Your task to perform on an android device: Go to network settings Image 0: 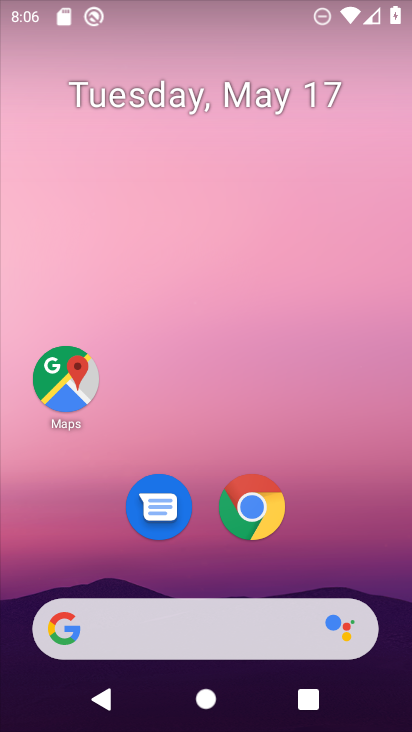
Step 0: drag from (379, 589) to (343, 6)
Your task to perform on an android device: Go to network settings Image 1: 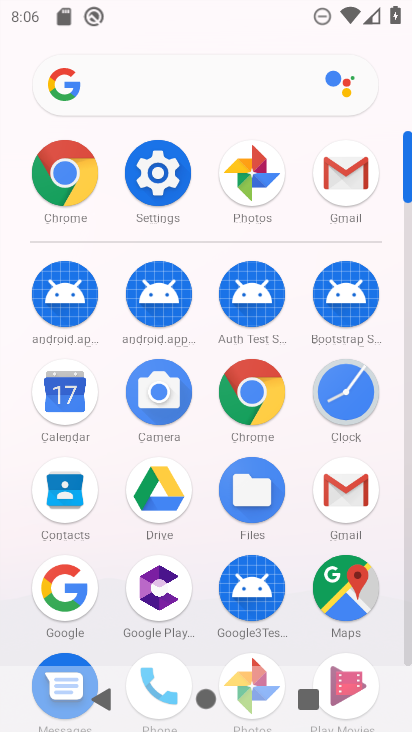
Step 1: click (162, 175)
Your task to perform on an android device: Go to network settings Image 2: 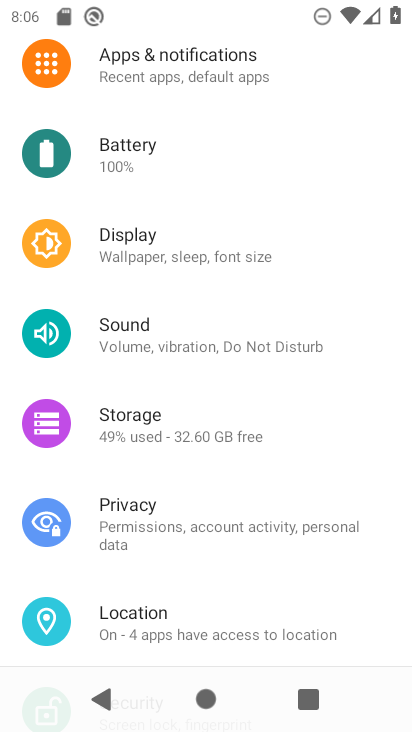
Step 2: drag from (196, 157) to (200, 442)
Your task to perform on an android device: Go to network settings Image 3: 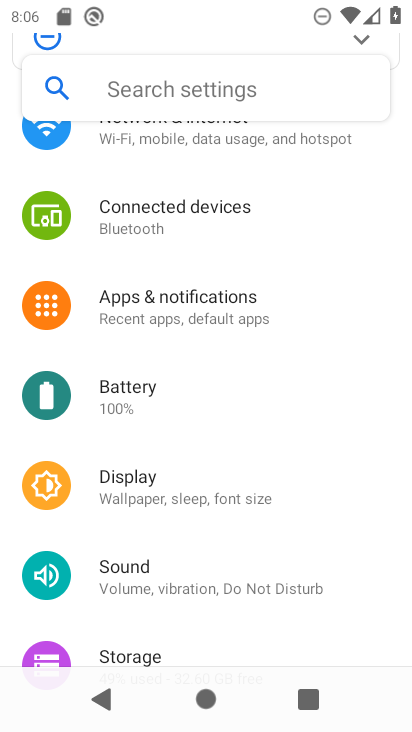
Step 3: drag from (168, 175) to (190, 373)
Your task to perform on an android device: Go to network settings Image 4: 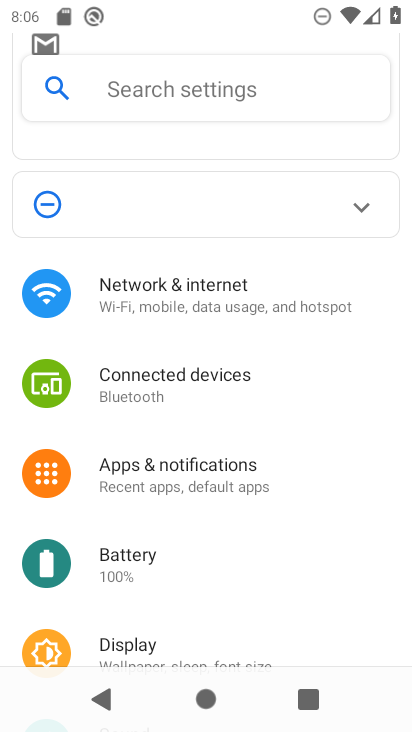
Step 4: click (177, 308)
Your task to perform on an android device: Go to network settings Image 5: 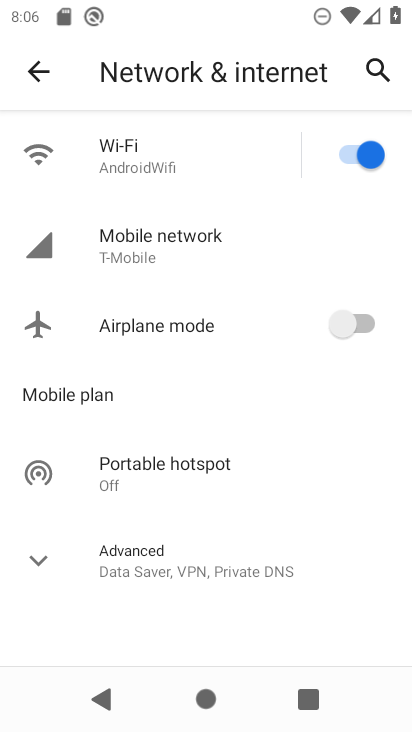
Step 5: task complete